Your task to perform on an android device: Go to Yahoo.com Image 0: 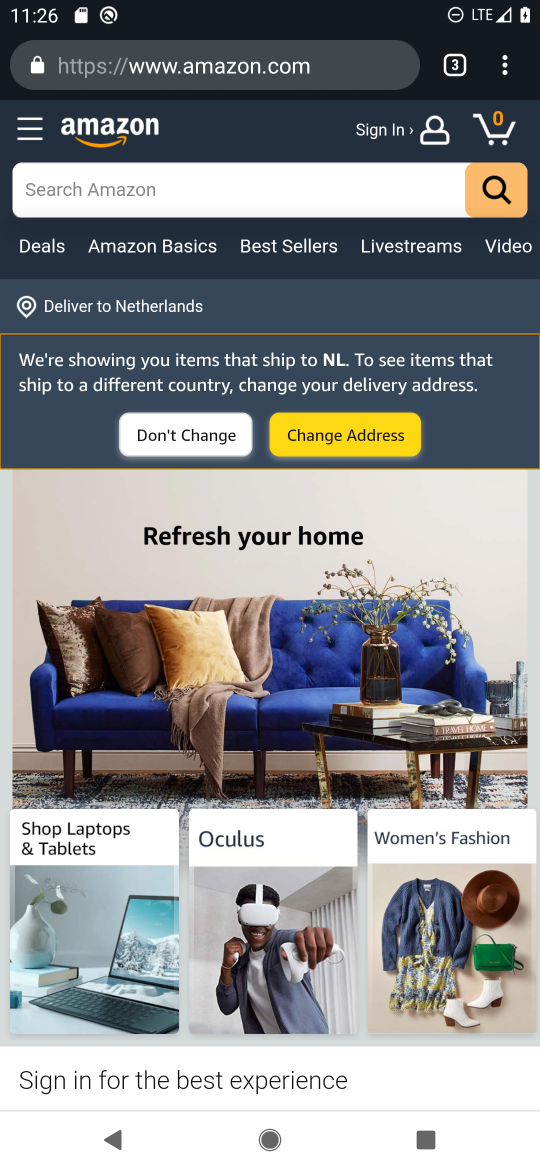
Step 0: click (284, 61)
Your task to perform on an android device: Go to Yahoo.com Image 1: 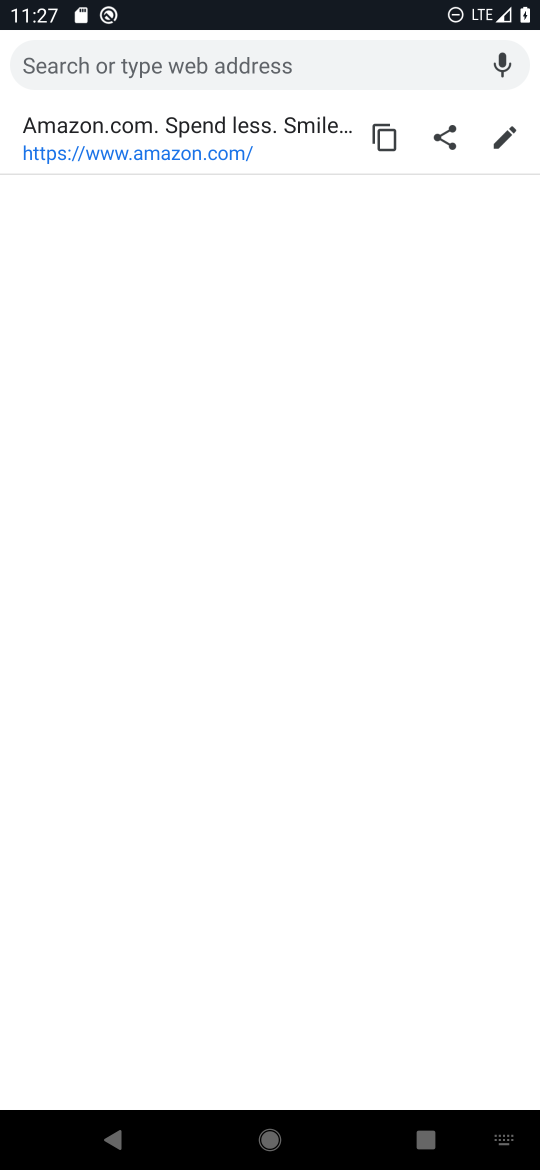
Step 1: type "yahoo.com"
Your task to perform on an android device: Go to Yahoo.com Image 2: 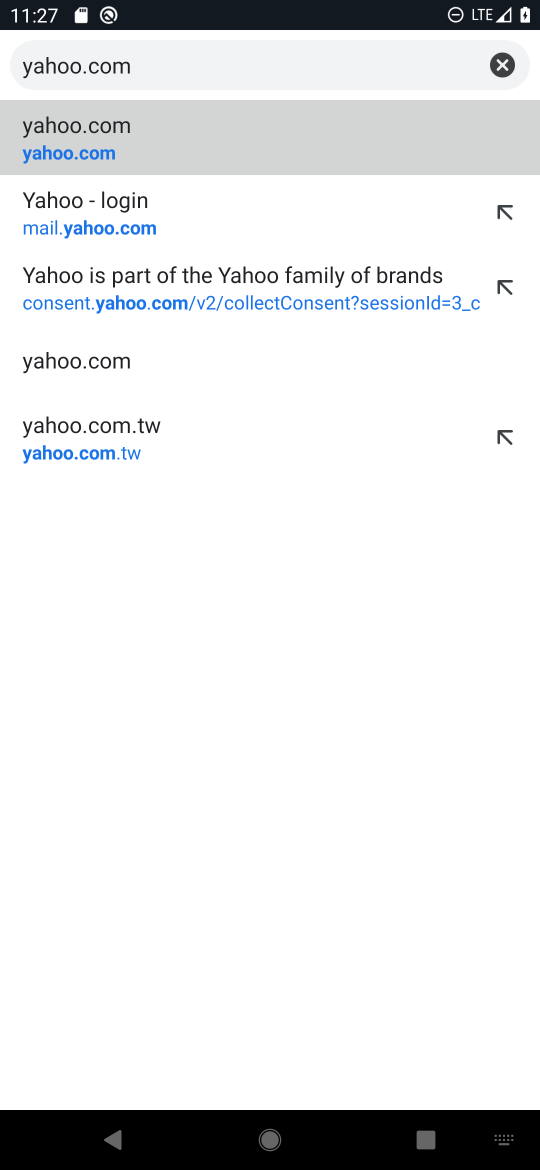
Step 2: click (120, 137)
Your task to perform on an android device: Go to Yahoo.com Image 3: 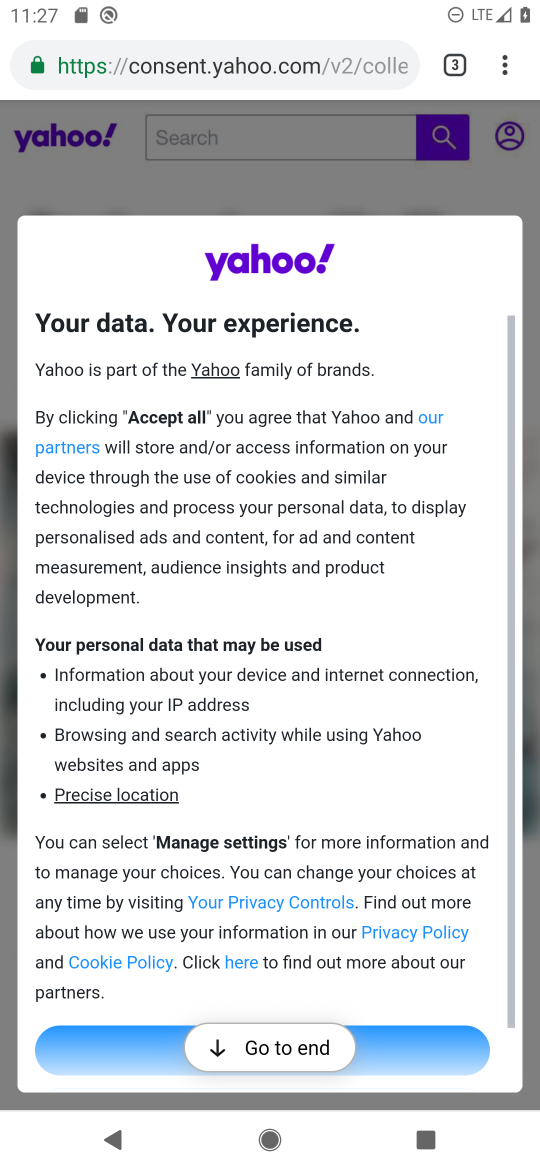
Step 3: task complete